Your task to perform on an android device: find snoozed emails in the gmail app Image 0: 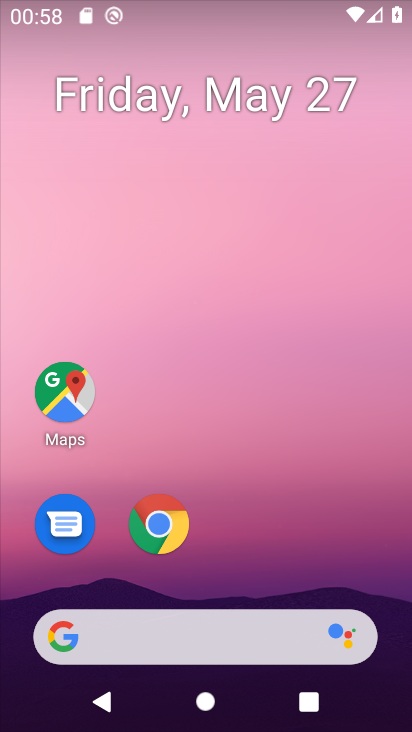
Step 0: drag from (265, 550) to (281, 23)
Your task to perform on an android device: find snoozed emails in the gmail app Image 1: 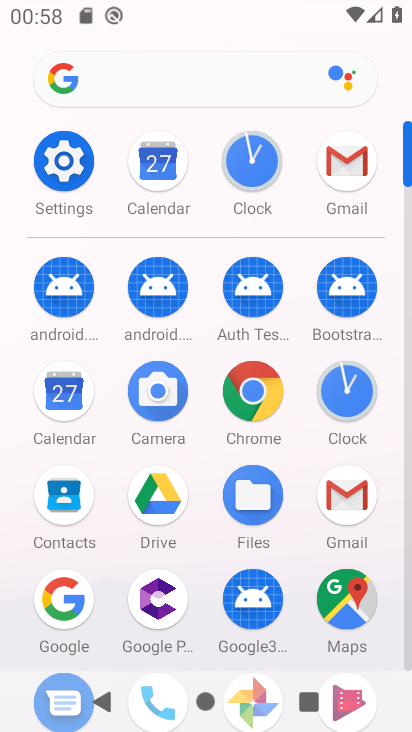
Step 1: click (349, 158)
Your task to perform on an android device: find snoozed emails in the gmail app Image 2: 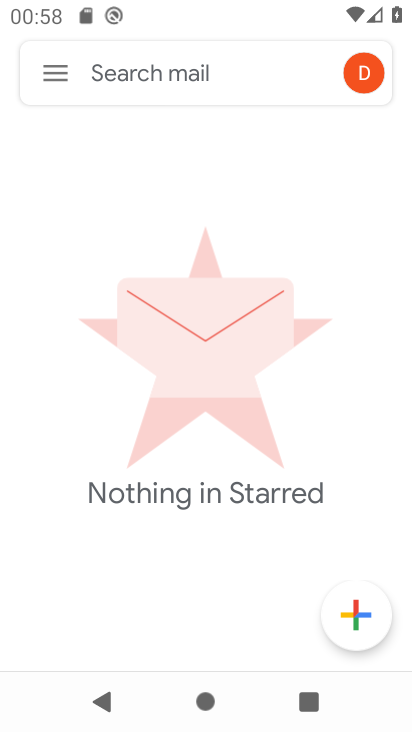
Step 2: click (46, 70)
Your task to perform on an android device: find snoozed emails in the gmail app Image 3: 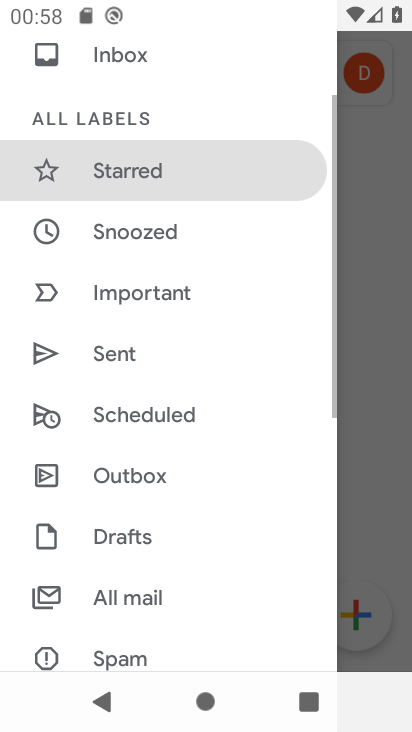
Step 3: click (124, 226)
Your task to perform on an android device: find snoozed emails in the gmail app Image 4: 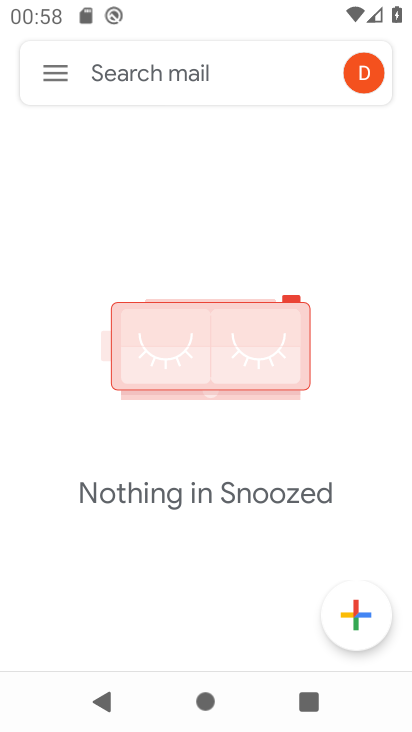
Step 4: task complete